Your task to perform on an android device: Go to Yahoo.com Image 0: 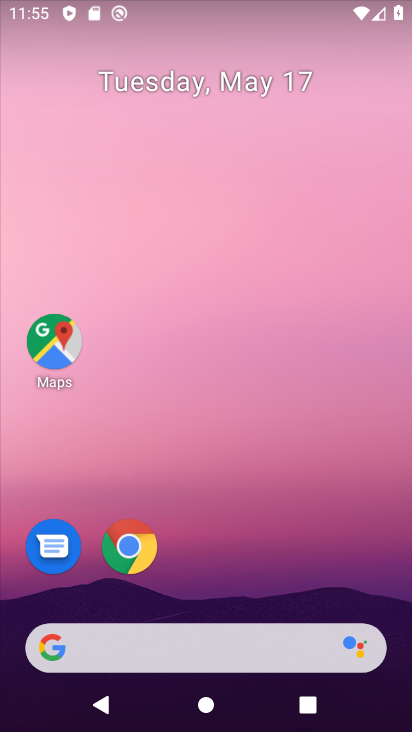
Step 0: click (142, 567)
Your task to perform on an android device: Go to Yahoo.com Image 1: 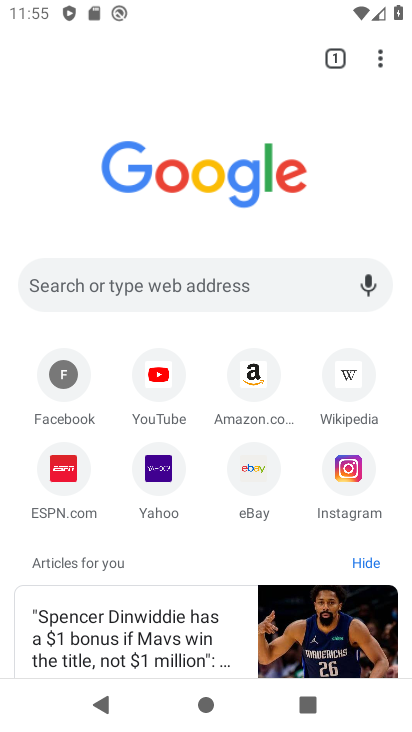
Step 1: click (176, 496)
Your task to perform on an android device: Go to Yahoo.com Image 2: 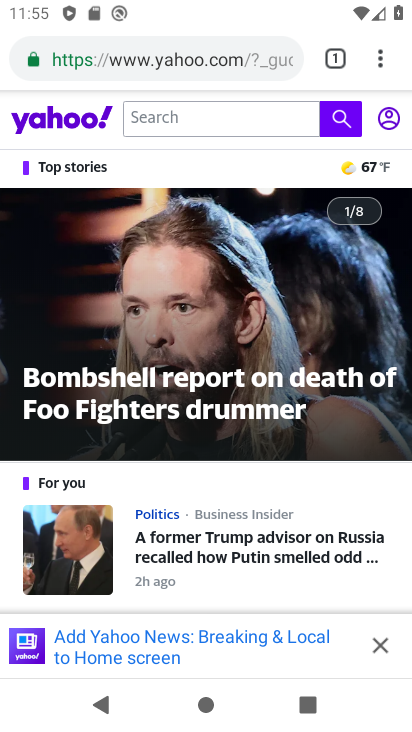
Step 2: click (398, 647)
Your task to perform on an android device: Go to Yahoo.com Image 3: 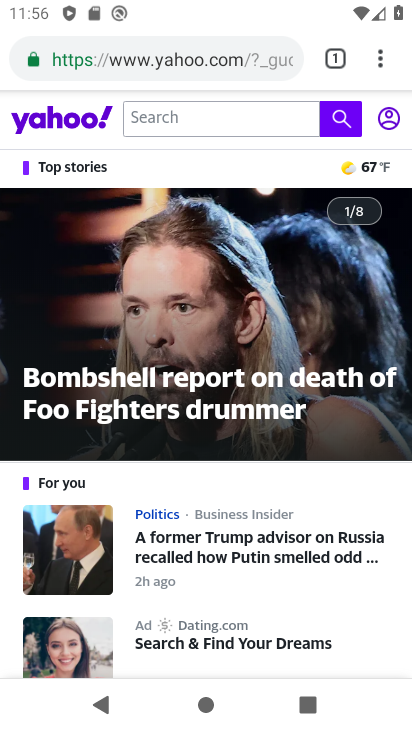
Step 3: task complete